Your task to perform on an android device: turn smart compose on in the gmail app Image 0: 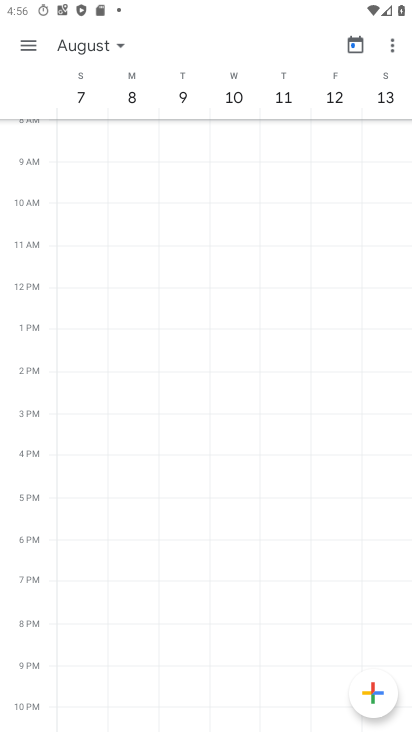
Step 0: press home button
Your task to perform on an android device: turn smart compose on in the gmail app Image 1: 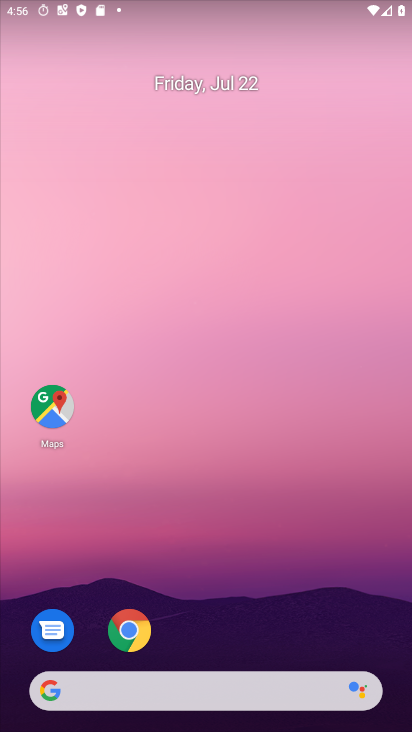
Step 1: drag from (196, 688) to (266, 0)
Your task to perform on an android device: turn smart compose on in the gmail app Image 2: 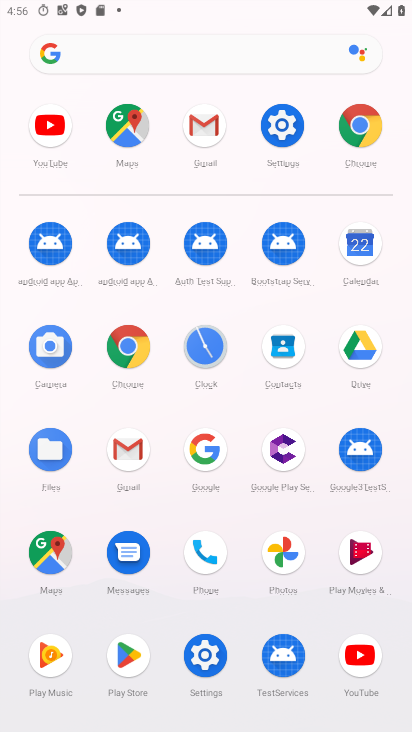
Step 2: click (140, 451)
Your task to perform on an android device: turn smart compose on in the gmail app Image 3: 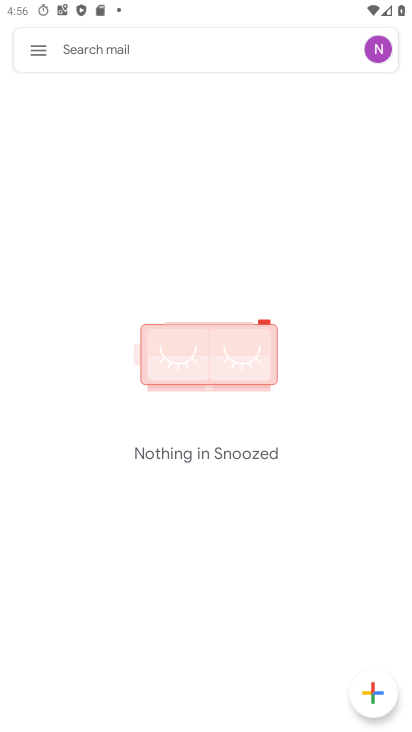
Step 3: click (35, 46)
Your task to perform on an android device: turn smart compose on in the gmail app Image 4: 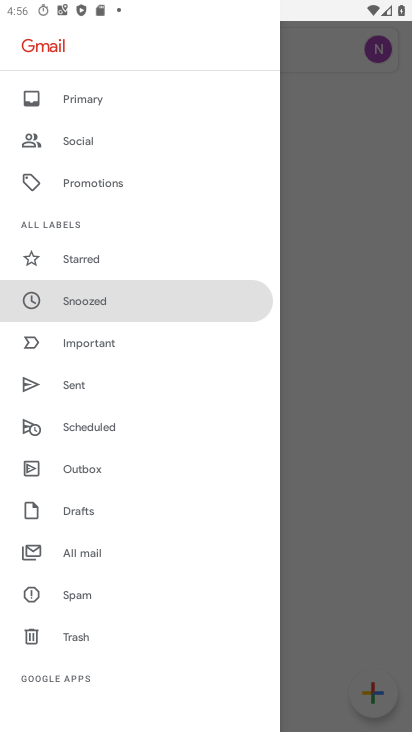
Step 4: drag from (109, 627) to (95, 193)
Your task to perform on an android device: turn smart compose on in the gmail app Image 5: 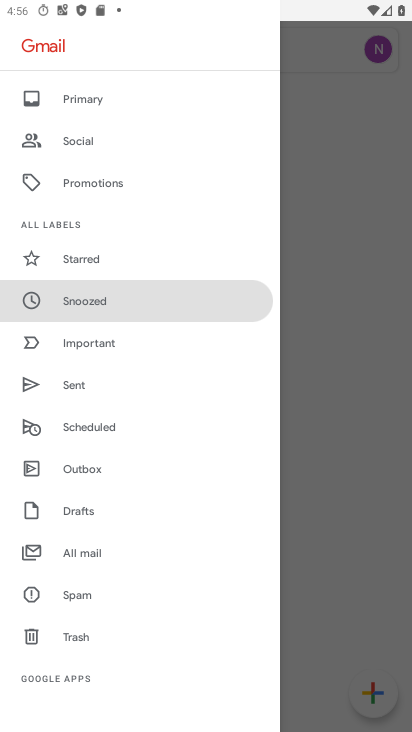
Step 5: drag from (89, 696) to (152, 173)
Your task to perform on an android device: turn smart compose on in the gmail app Image 6: 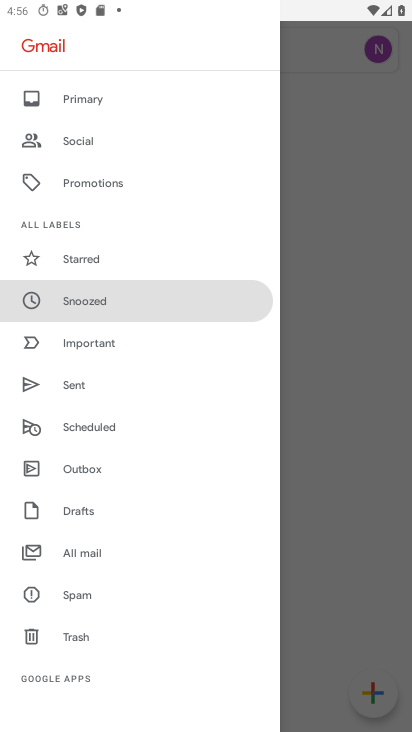
Step 6: drag from (81, 642) to (107, 172)
Your task to perform on an android device: turn smart compose on in the gmail app Image 7: 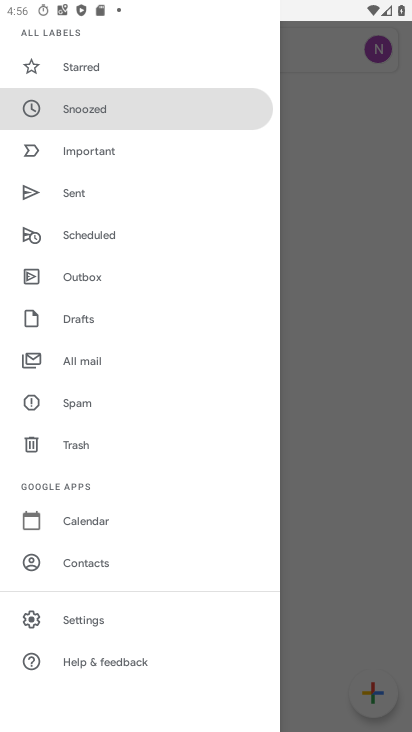
Step 7: click (84, 623)
Your task to perform on an android device: turn smart compose on in the gmail app Image 8: 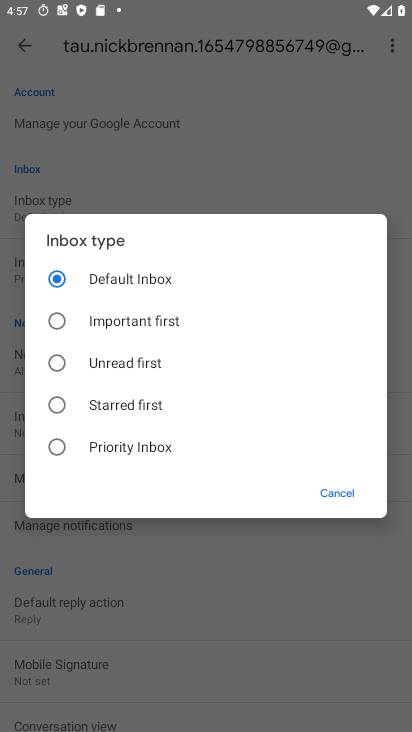
Step 8: click (334, 497)
Your task to perform on an android device: turn smart compose on in the gmail app Image 9: 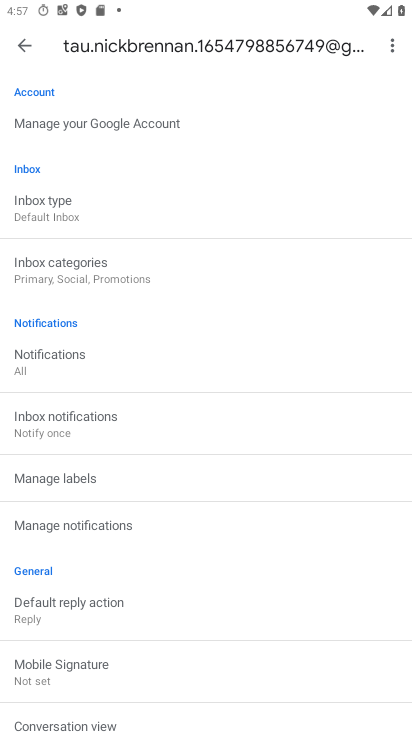
Step 9: task complete